Your task to perform on an android device: see sites visited before in the chrome app Image 0: 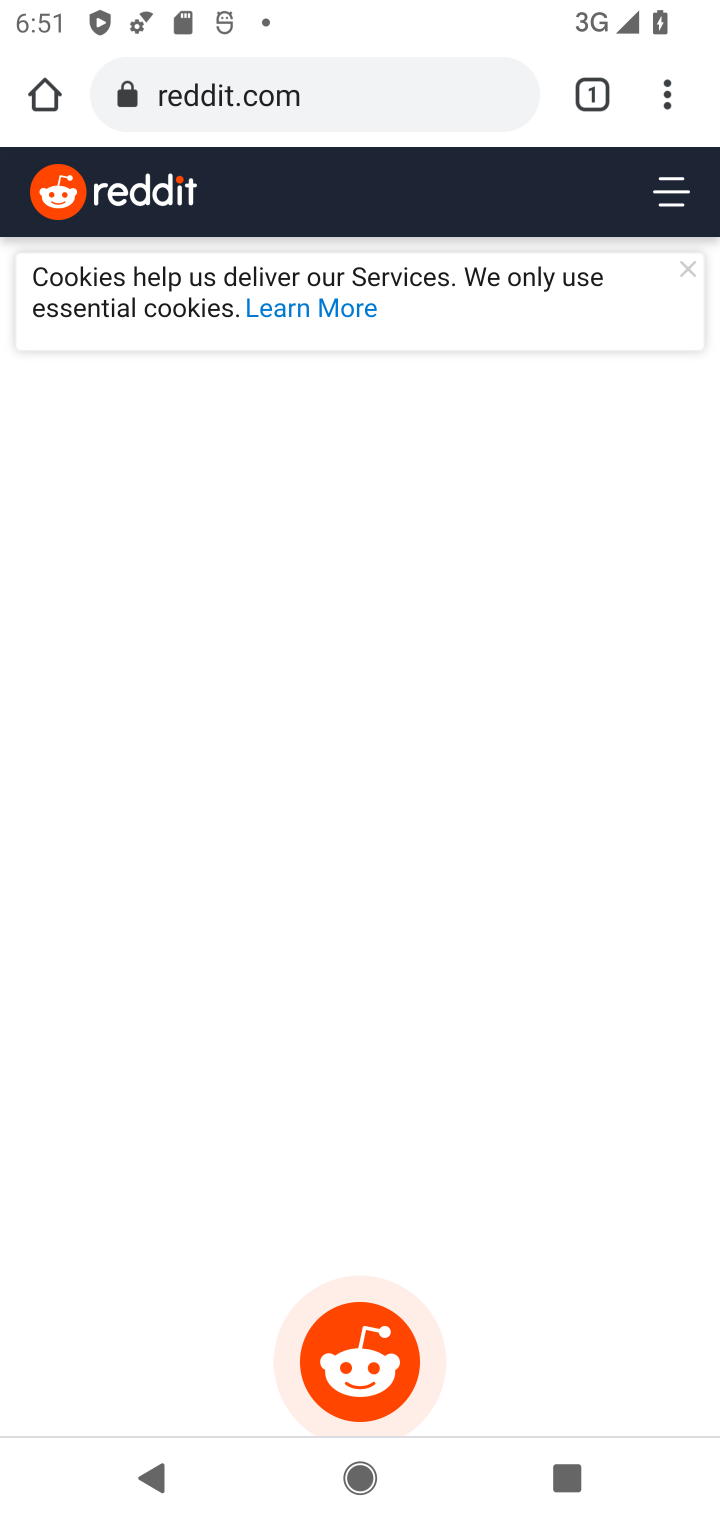
Step 0: drag from (670, 84) to (418, 791)
Your task to perform on an android device: see sites visited before in the chrome app Image 1: 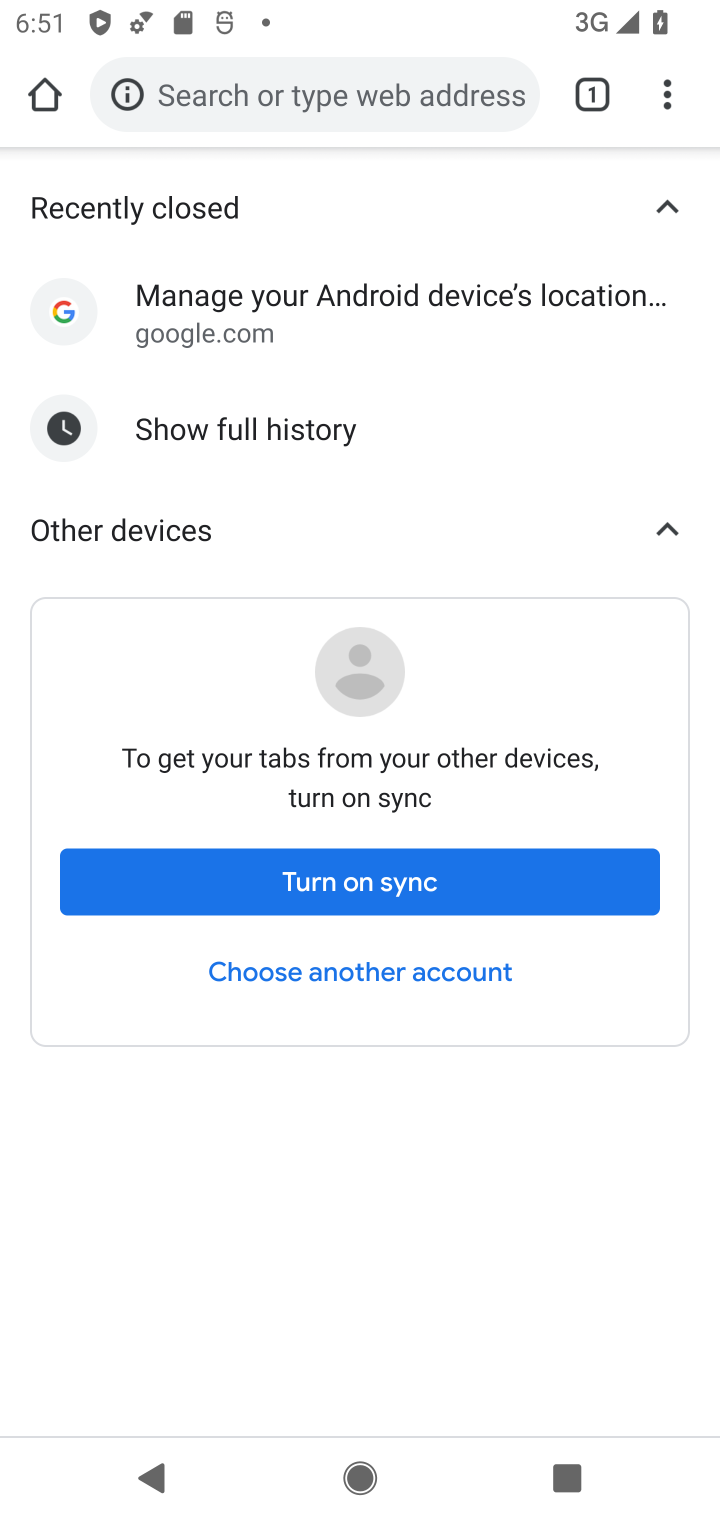
Step 1: click (314, 889)
Your task to perform on an android device: see sites visited before in the chrome app Image 2: 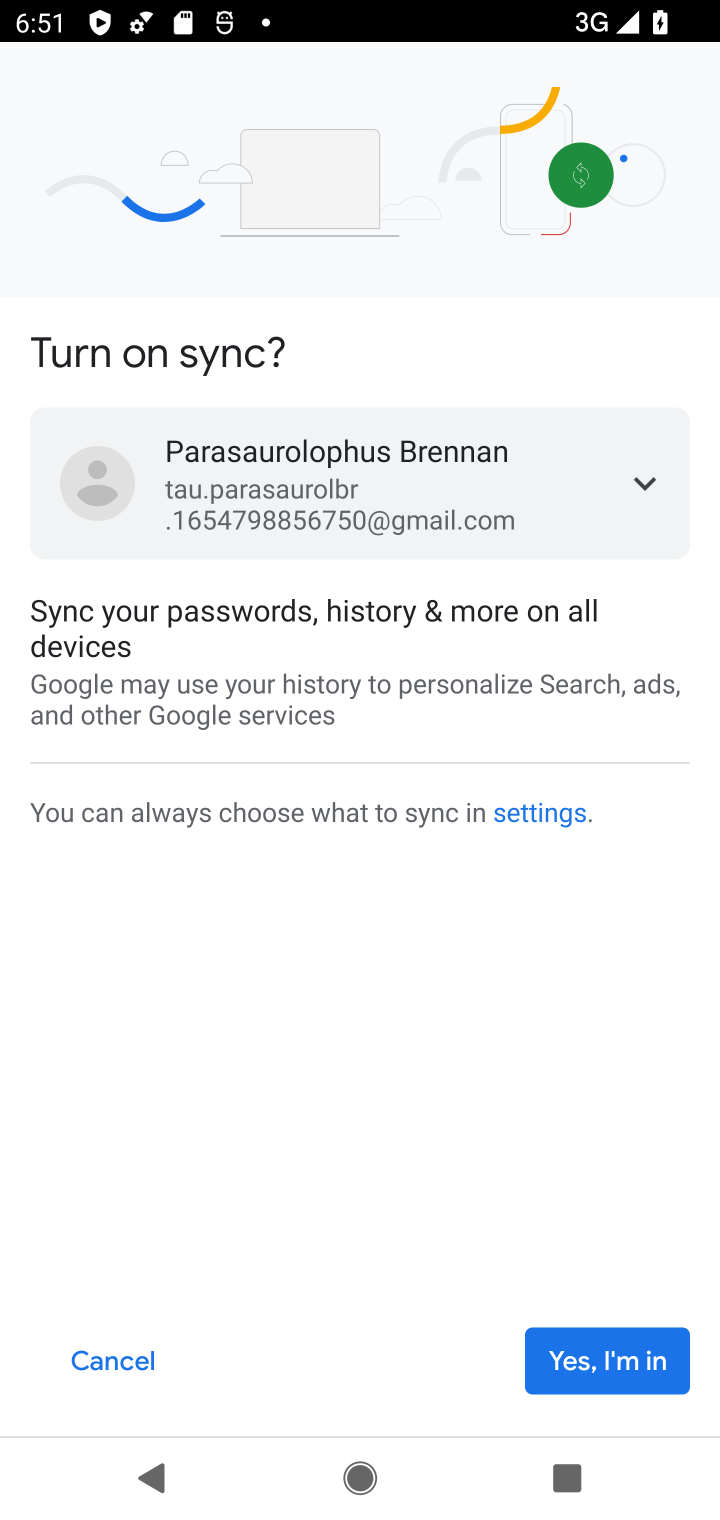
Step 2: click (607, 1363)
Your task to perform on an android device: see sites visited before in the chrome app Image 3: 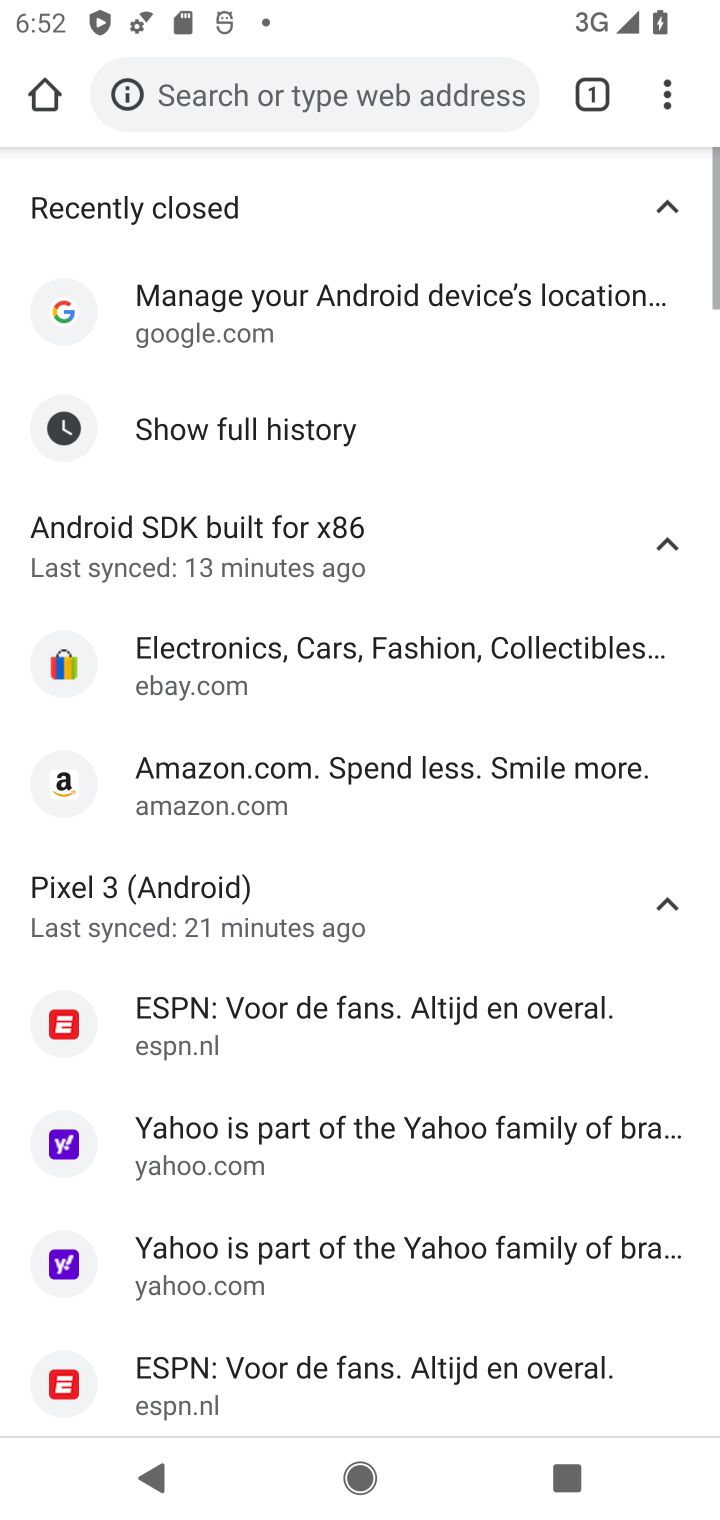
Step 3: task complete